Your task to perform on an android device: turn on airplane mode Image 0: 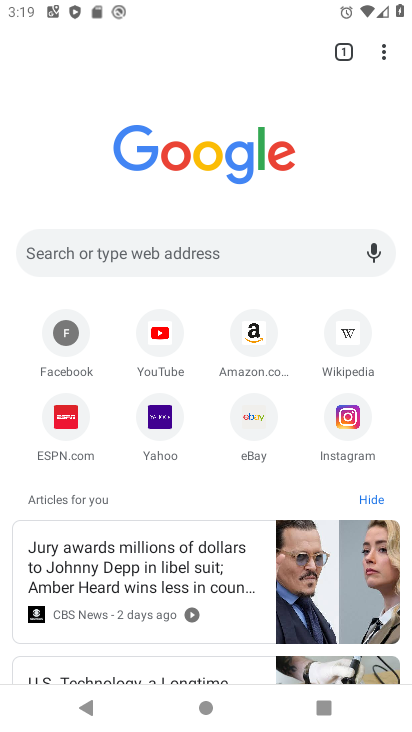
Step 0: press home button
Your task to perform on an android device: turn on airplane mode Image 1: 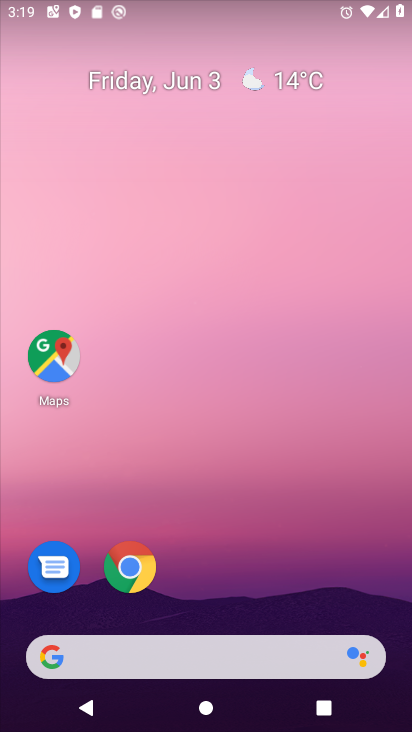
Step 1: drag from (240, 574) to (171, 197)
Your task to perform on an android device: turn on airplane mode Image 2: 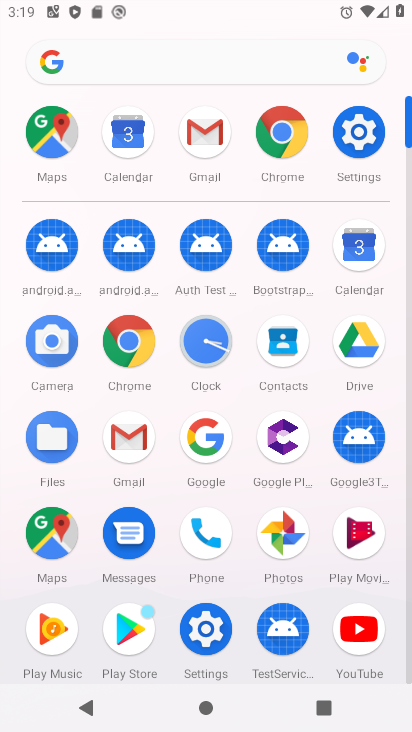
Step 2: click (376, 134)
Your task to perform on an android device: turn on airplane mode Image 3: 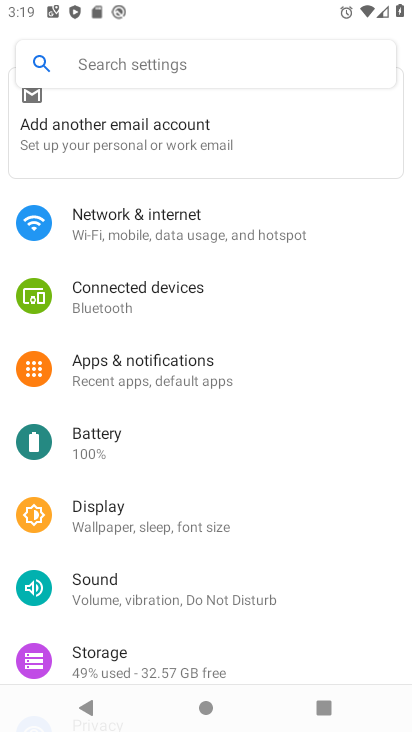
Step 3: click (206, 238)
Your task to perform on an android device: turn on airplane mode Image 4: 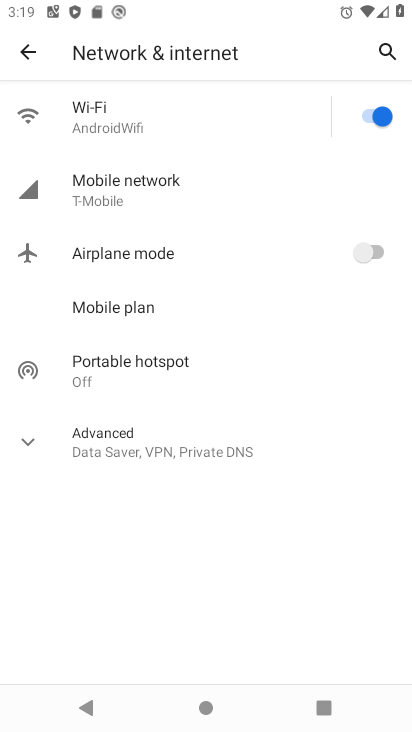
Step 4: click (369, 254)
Your task to perform on an android device: turn on airplane mode Image 5: 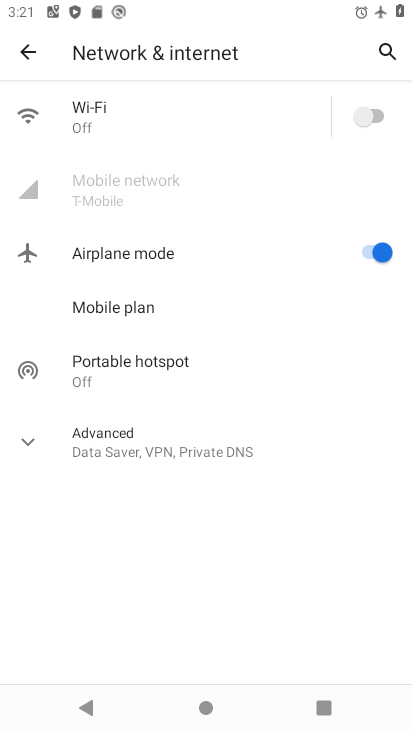
Step 5: task complete